Your task to perform on an android device: Open calendar and show me the second week of next month Image 0: 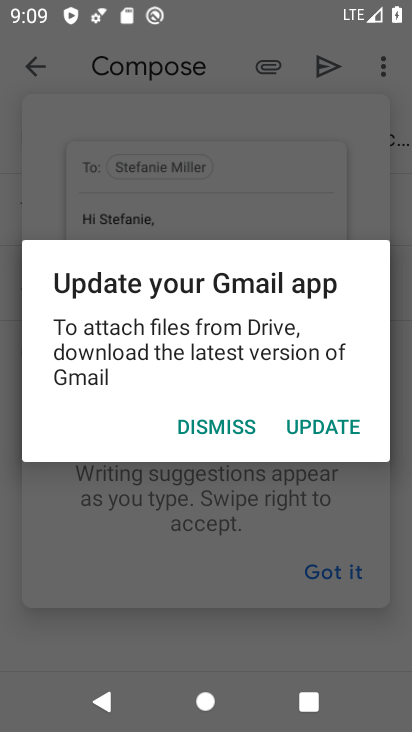
Step 0: press home button
Your task to perform on an android device: Open calendar and show me the second week of next month Image 1: 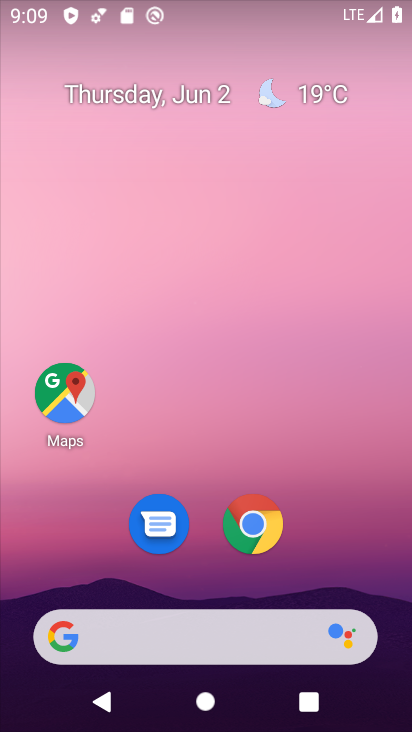
Step 1: drag from (310, 548) to (328, 29)
Your task to perform on an android device: Open calendar and show me the second week of next month Image 2: 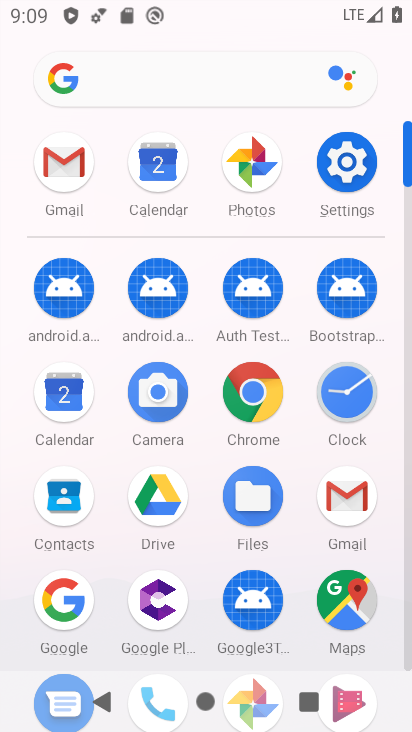
Step 2: click (167, 163)
Your task to perform on an android device: Open calendar and show me the second week of next month Image 3: 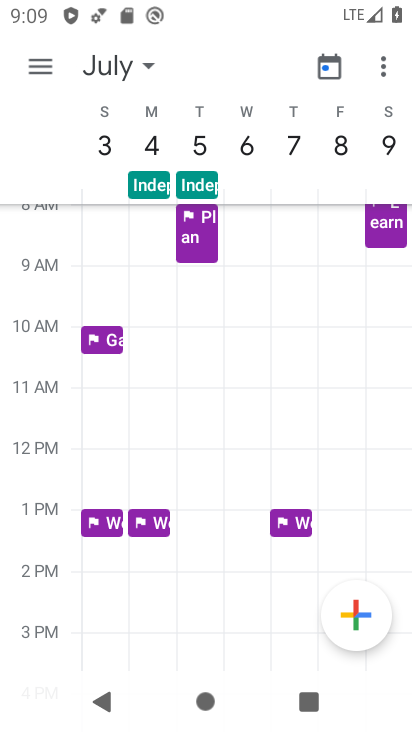
Step 3: task complete